Your task to perform on an android device: allow notifications from all sites in the chrome app Image 0: 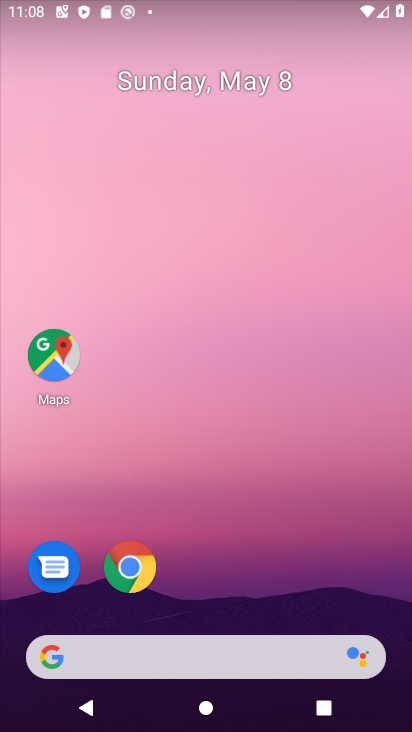
Step 0: click (270, 2)
Your task to perform on an android device: allow notifications from all sites in the chrome app Image 1: 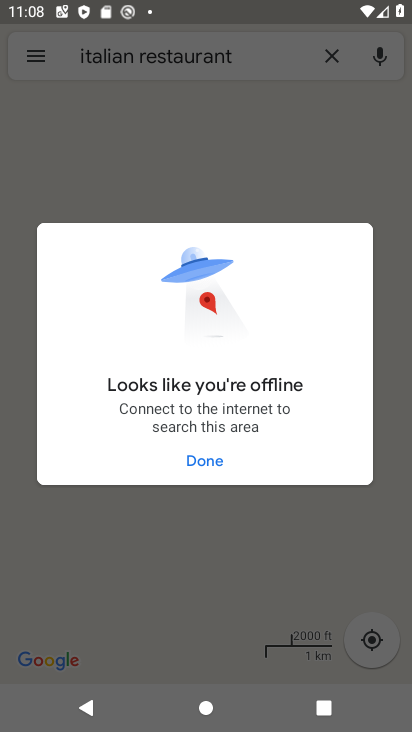
Step 1: press home button
Your task to perform on an android device: allow notifications from all sites in the chrome app Image 2: 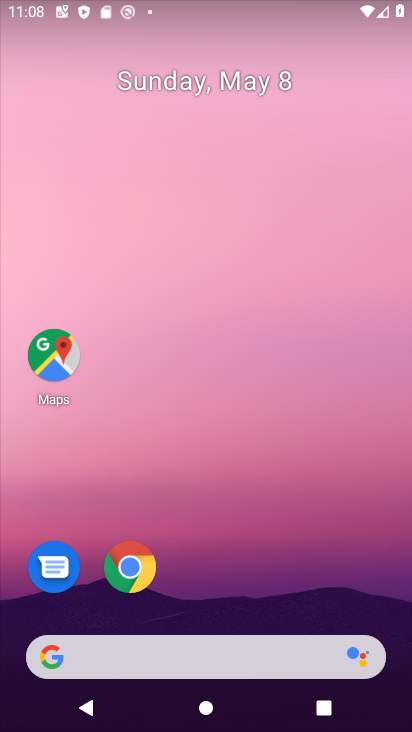
Step 2: click (125, 563)
Your task to perform on an android device: allow notifications from all sites in the chrome app Image 3: 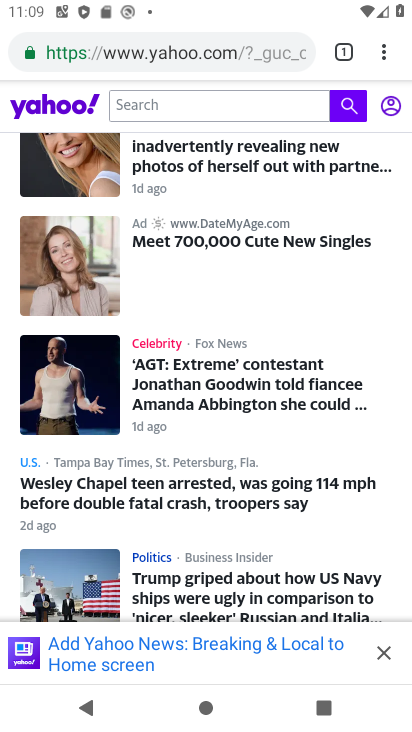
Step 3: click (381, 49)
Your task to perform on an android device: allow notifications from all sites in the chrome app Image 4: 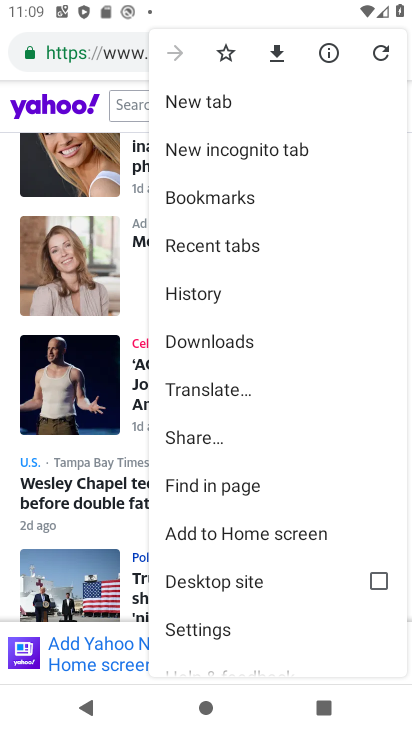
Step 4: click (236, 625)
Your task to perform on an android device: allow notifications from all sites in the chrome app Image 5: 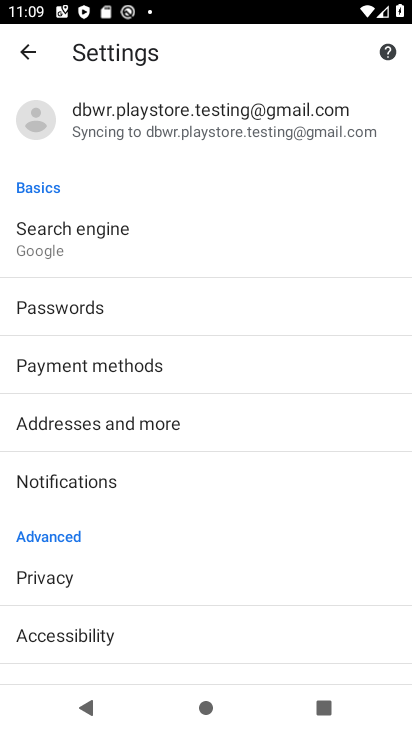
Step 5: drag from (188, 608) to (239, 328)
Your task to perform on an android device: allow notifications from all sites in the chrome app Image 6: 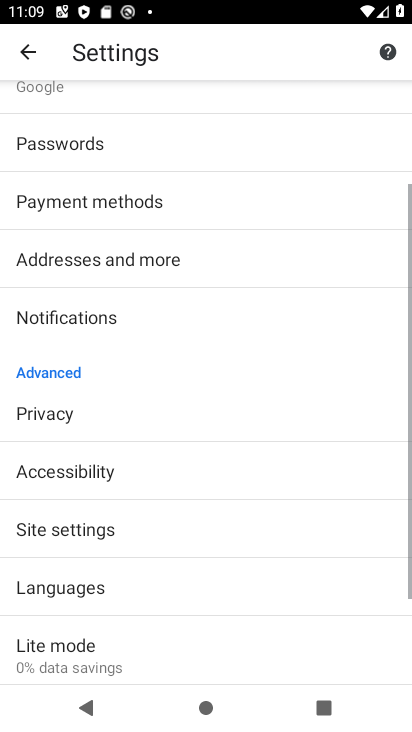
Step 6: click (271, 146)
Your task to perform on an android device: allow notifications from all sites in the chrome app Image 7: 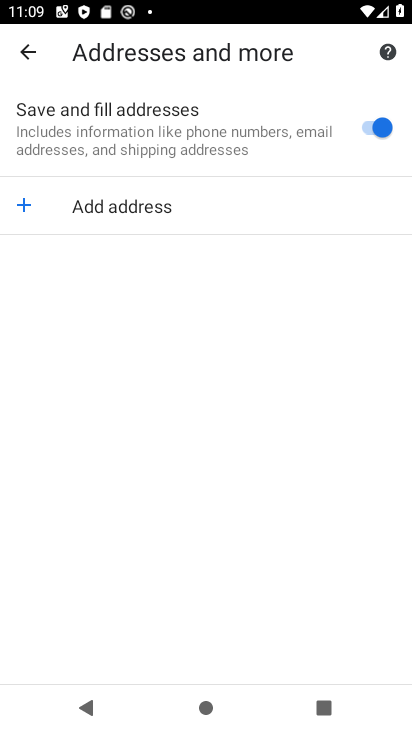
Step 7: click (31, 55)
Your task to perform on an android device: allow notifications from all sites in the chrome app Image 8: 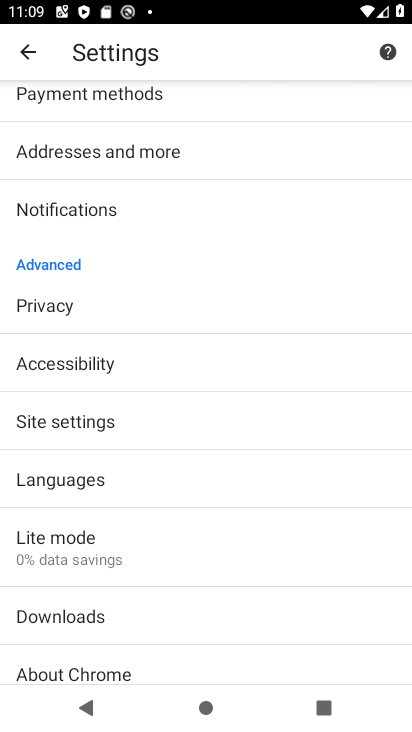
Step 8: click (139, 418)
Your task to perform on an android device: allow notifications from all sites in the chrome app Image 9: 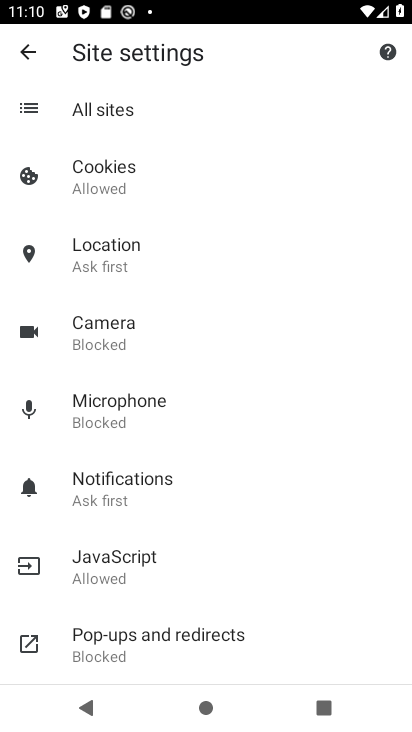
Step 9: click (147, 110)
Your task to perform on an android device: allow notifications from all sites in the chrome app Image 10: 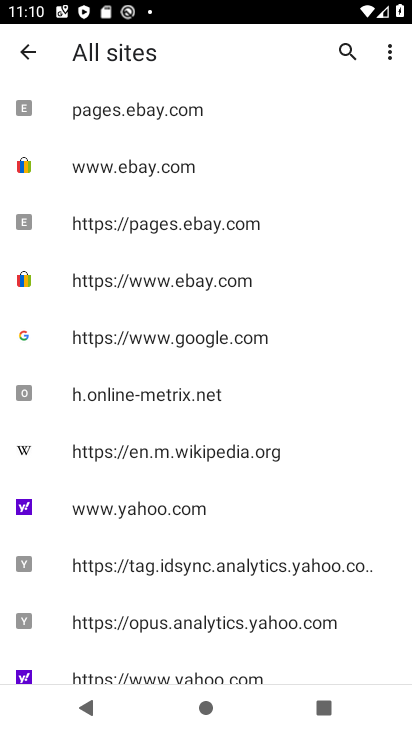
Step 10: task complete